Your task to perform on an android device: turn smart compose on in the gmail app Image 0: 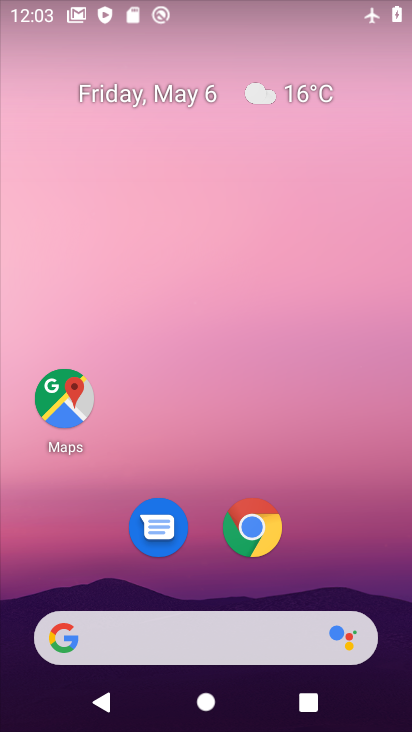
Step 0: drag from (324, 544) to (112, 81)
Your task to perform on an android device: turn smart compose on in the gmail app Image 1: 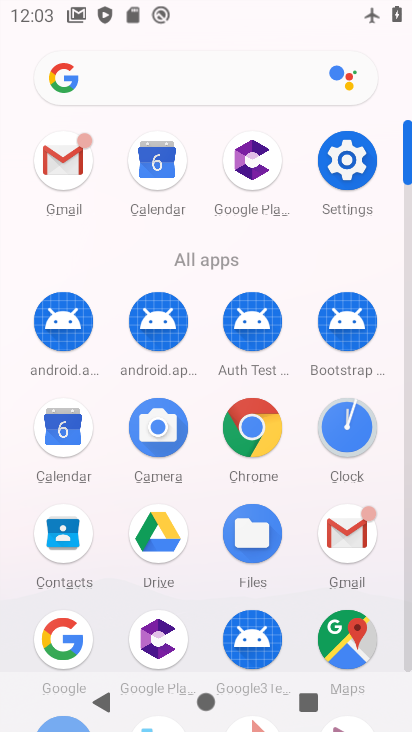
Step 1: click (350, 548)
Your task to perform on an android device: turn smart compose on in the gmail app Image 2: 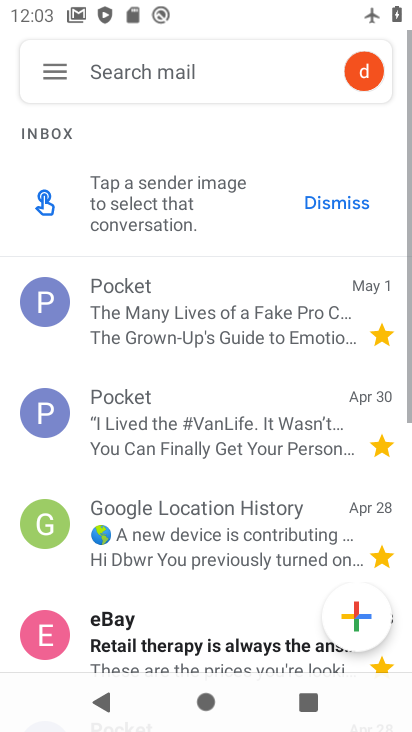
Step 2: click (45, 69)
Your task to perform on an android device: turn smart compose on in the gmail app Image 3: 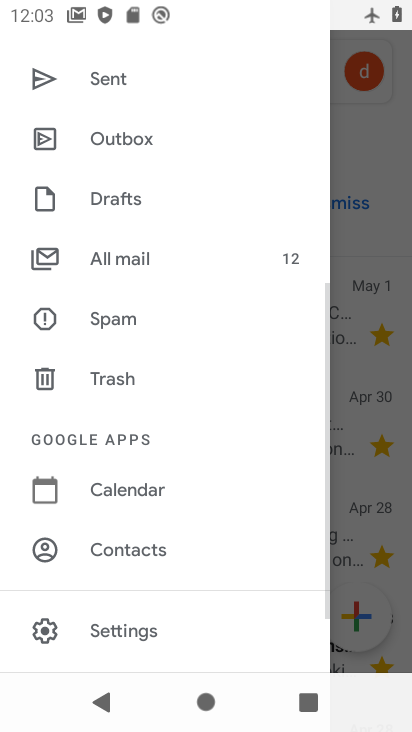
Step 3: click (142, 628)
Your task to perform on an android device: turn smart compose on in the gmail app Image 4: 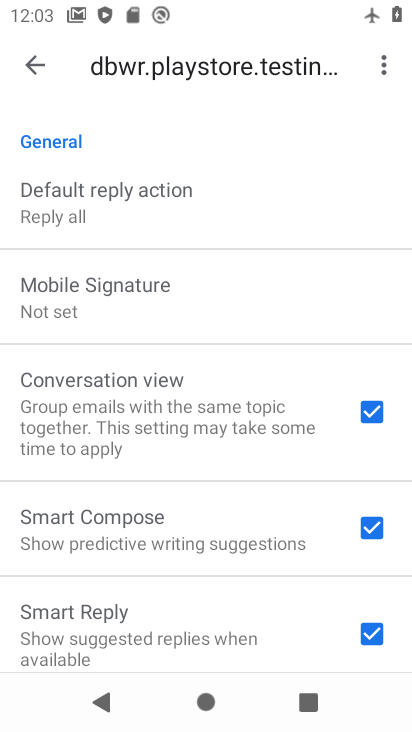
Step 4: task complete